Your task to perform on an android device: Go to Android settings Image 0: 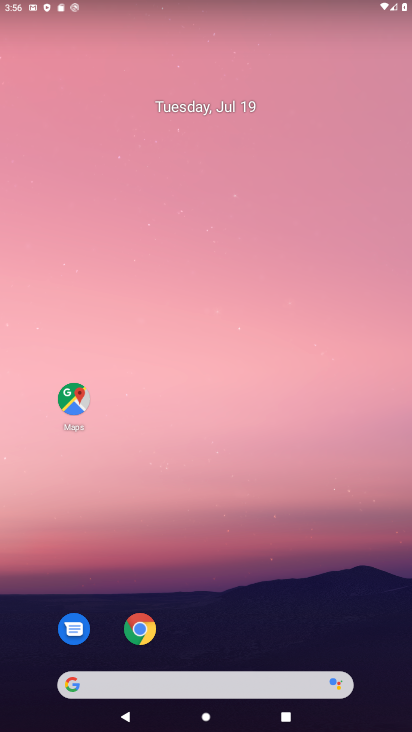
Step 0: click (214, 117)
Your task to perform on an android device: Go to Android settings Image 1: 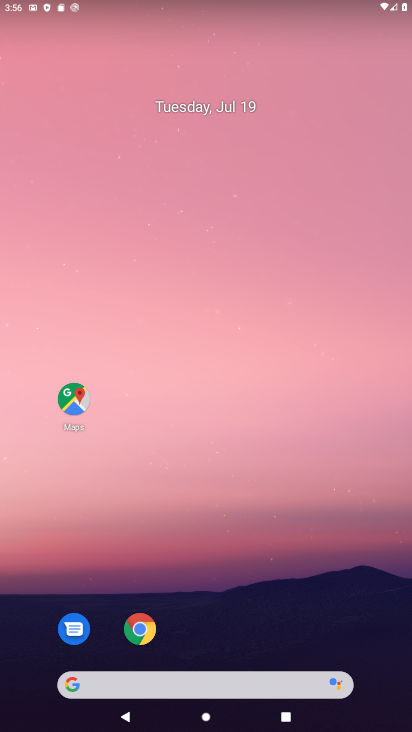
Step 1: drag from (240, 638) to (211, 158)
Your task to perform on an android device: Go to Android settings Image 2: 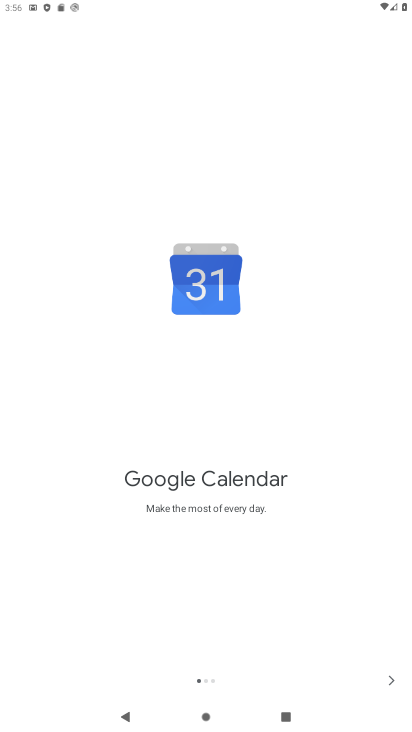
Step 2: press back button
Your task to perform on an android device: Go to Android settings Image 3: 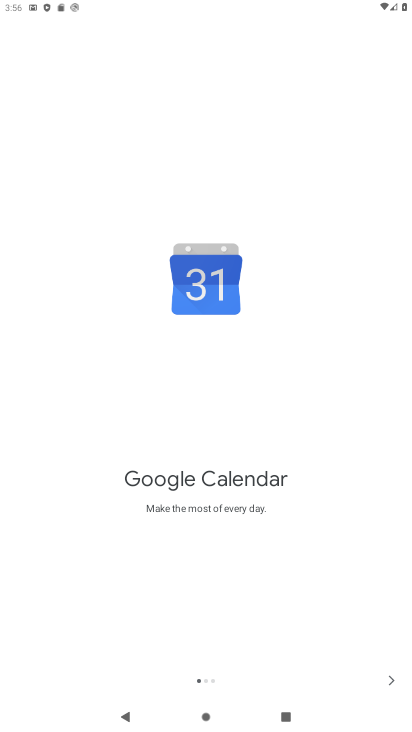
Step 3: press back button
Your task to perform on an android device: Go to Android settings Image 4: 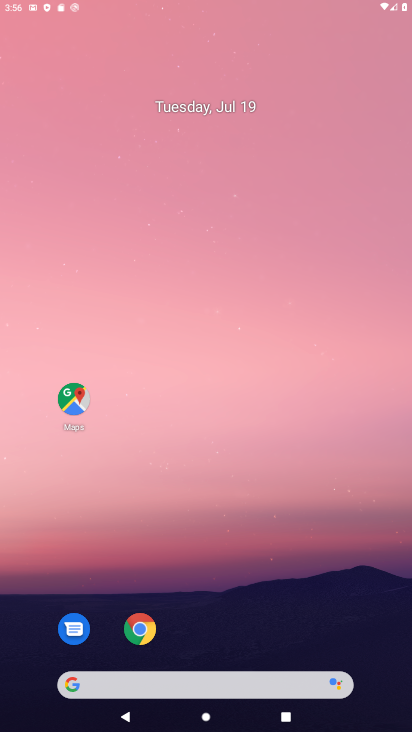
Step 4: press back button
Your task to perform on an android device: Go to Android settings Image 5: 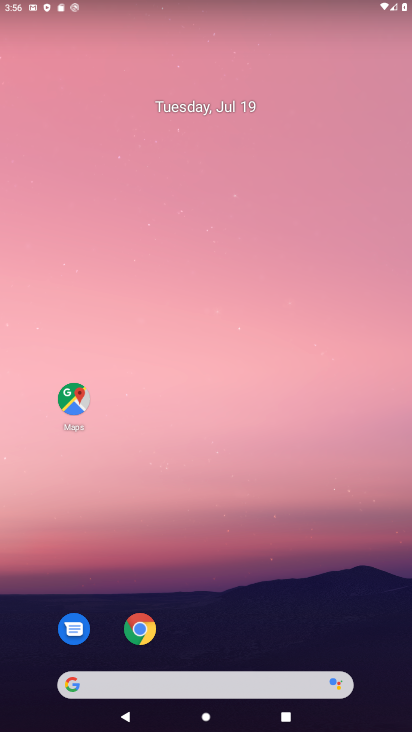
Step 5: drag from (258, 612) to (186, 129)
Your task to perform on an android device: Go to Android settings Image 6: 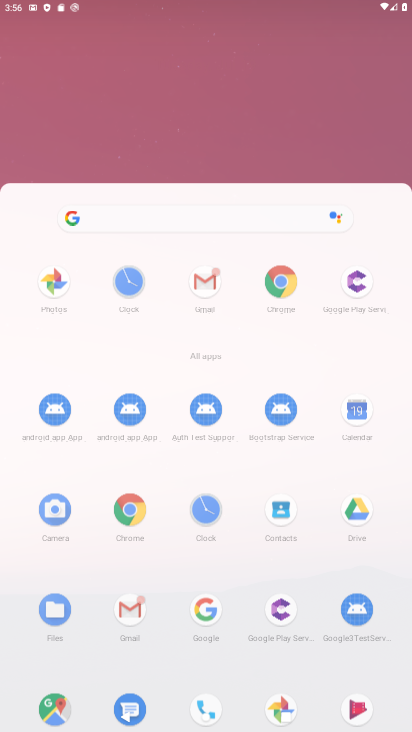
Step 6: drag from (252, 644) to (194, 137)
Your task to perform on an android device: Go to Android settings Image 7: 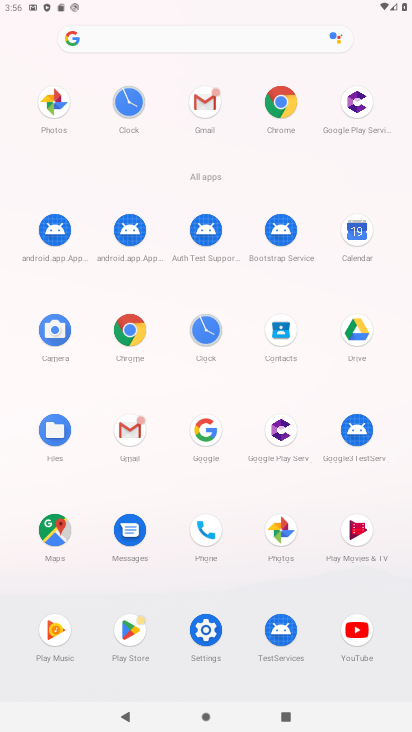
Step 7: click (204, 632)
Your task to perform on an android device: Go to Android settings Image 8: 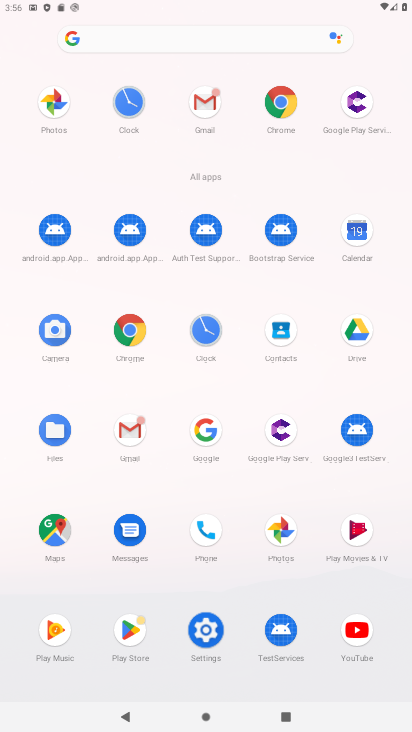
Step 8: click (209, 631)
Your task to perform on an android device: Go to Android settings Image 9: 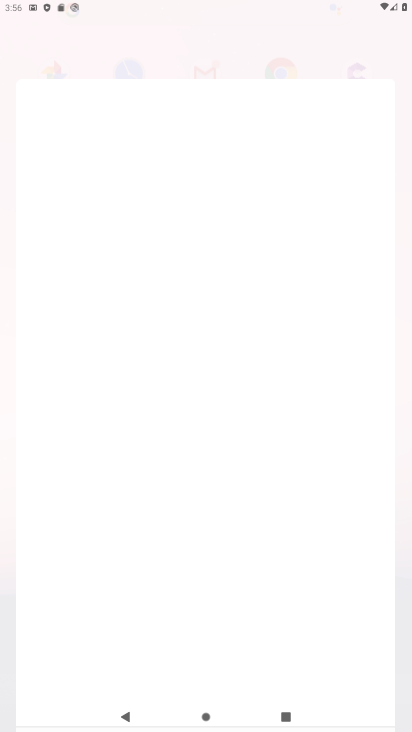
Step 9: click (209, 631)
Your task to perform on an android device: Go to Android settings Image 10: 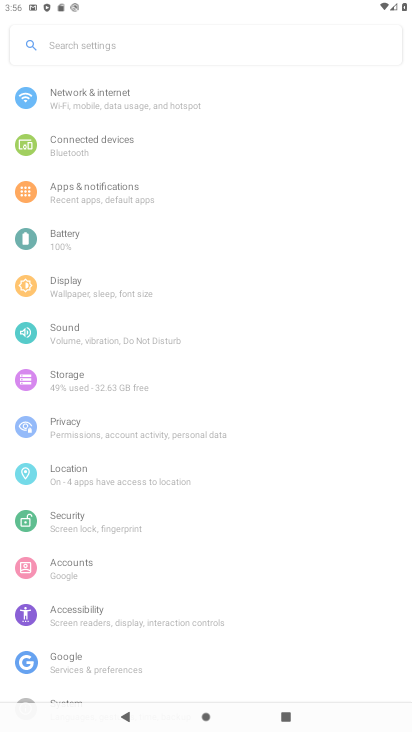
Step 10: click (208, 628)
Your task to perform on an android device: Go to Android settings Image 11: 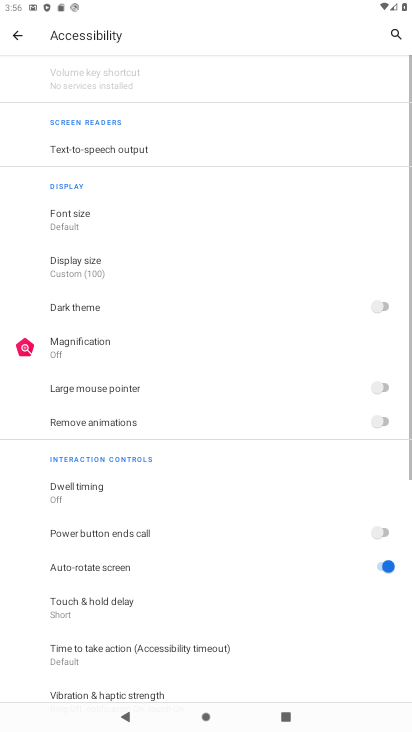
Step 11: drag from (101, 550) to (89, 231)
Your task to perform on an android device: Go to Android settings Image 12: 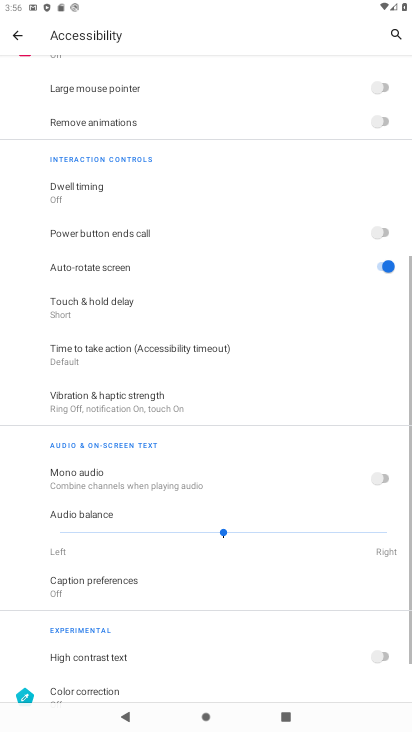
Step 12: click (26, 35)
Your task to perform on an android device: Go to Android settings Image 13: 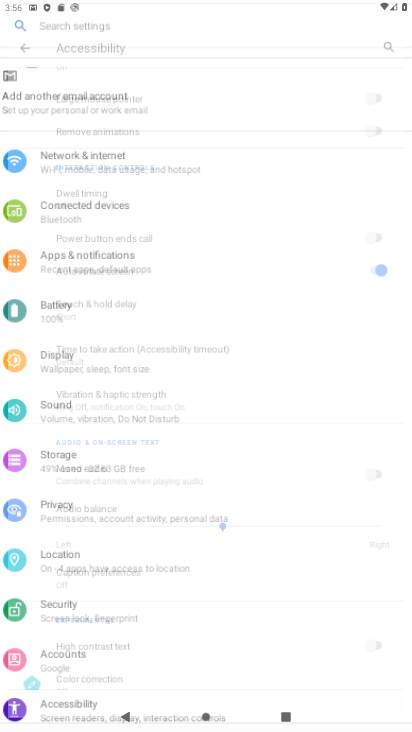
Step 13: drag from (111, 619) to (110, 234)
Your task to perform on an android device: Go to Android settings Image 14: 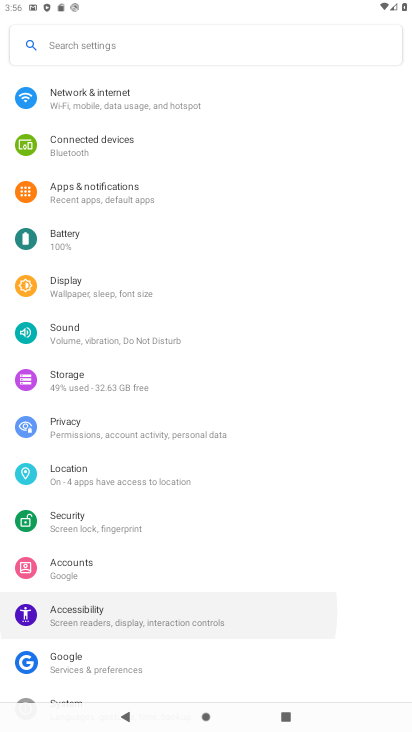
Step 14: drag from (145, 482) to (145, 234)
Your task to perform on an android device: Go to Android settings Image 15: 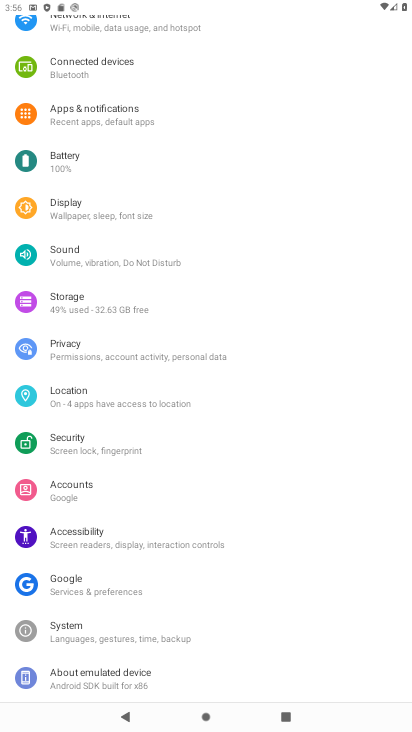
Step 15: drag from (103, 585) to (105, 299)
Your task to perform on an android device: Go to Android settings Image 16: 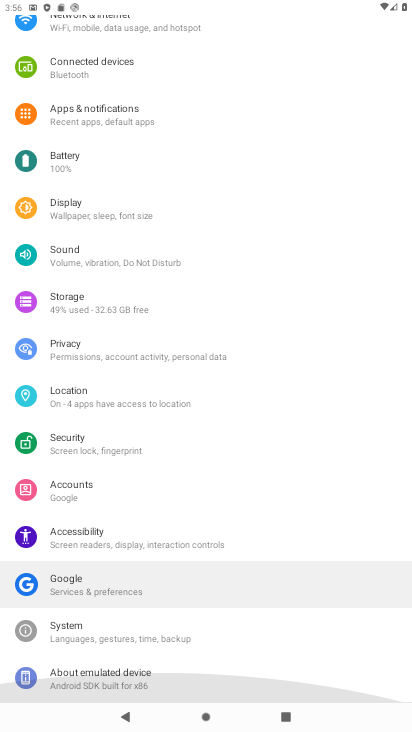
Step 16: click (96, 669)
Your task to perform on an android device: Go to Android settings Image 17: 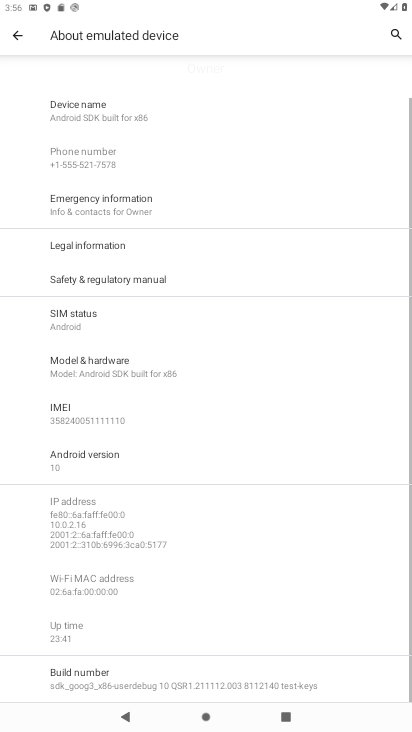
Step 17: click (96, 669)
Your task to perform on an android device: Go to Android settings Image 18: 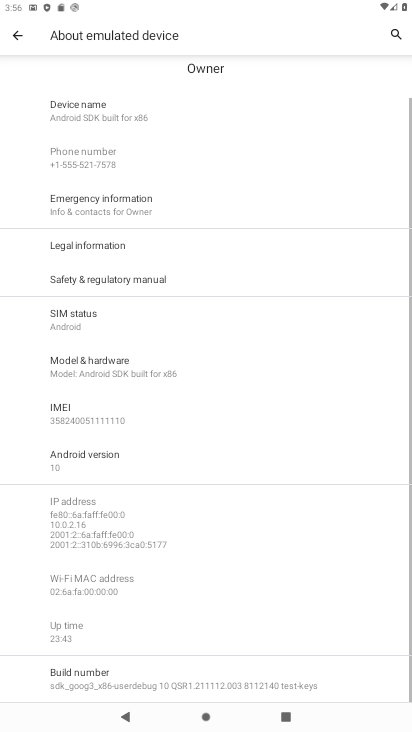
Step 18: task complete